Your task to perform on an android device: change notifications settings Image 0: 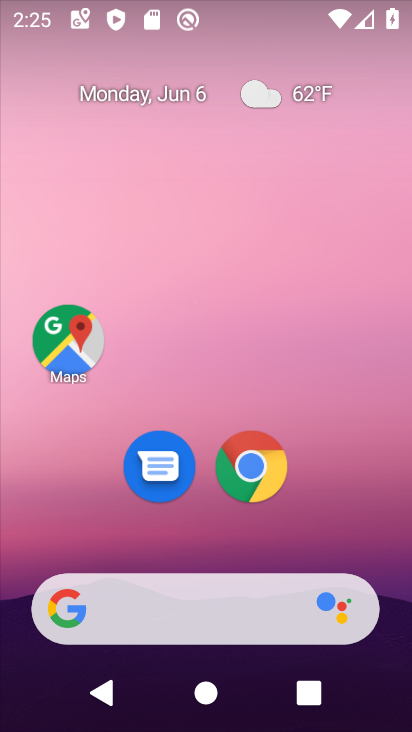
Step 0: drag from (401, 577) to (325, 197)
Your task to perform on an android device: change notifications settings Image 1: 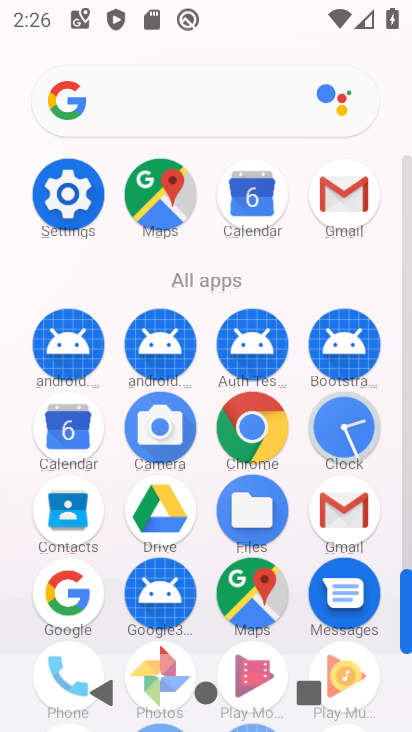
Step 1: click (88, 192)
Your task to perform on an android device: change notifications settings Image 2: 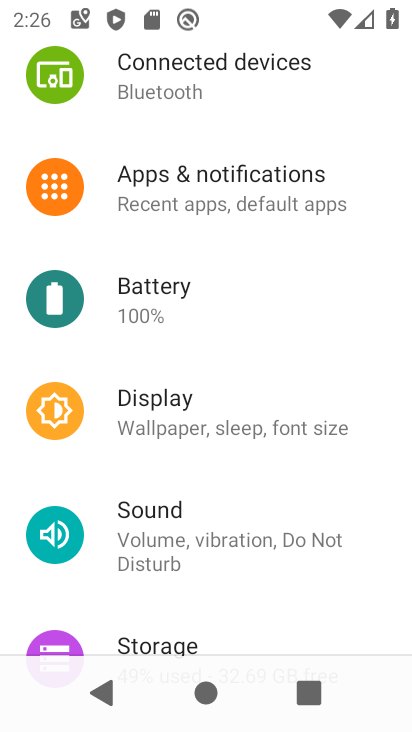
Step 2: click (236, 201)
Your task to perform on an android device: change notifications settings Image 3: 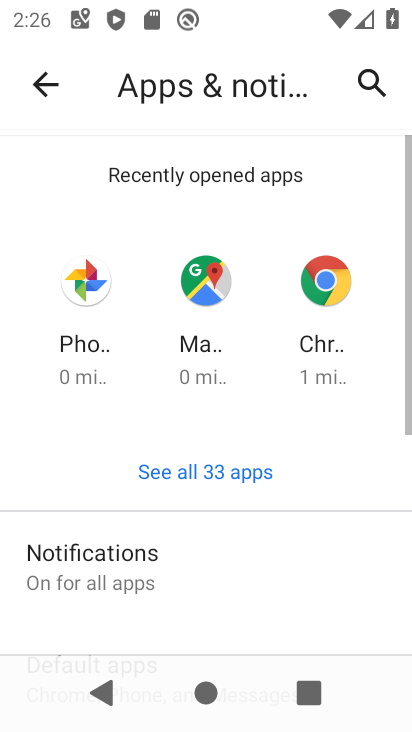
Step 3: drag from (246, 539) to (205, 158)
Your task to perform on an android device: change notifications settings Image 4: 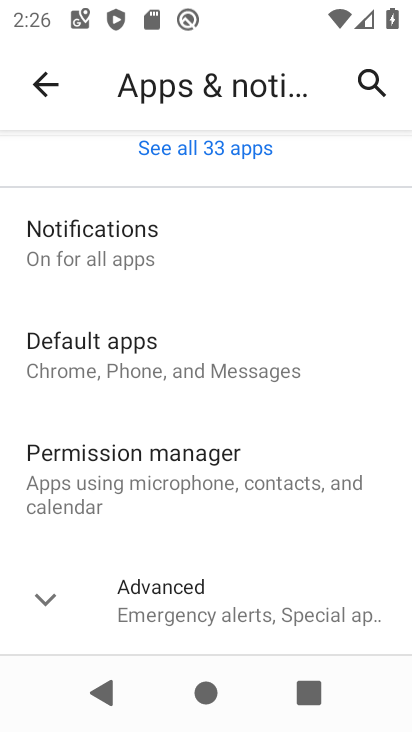
Step 4: click (217, 238)
Your task to perform on an android device: change notifications settings Image 5: 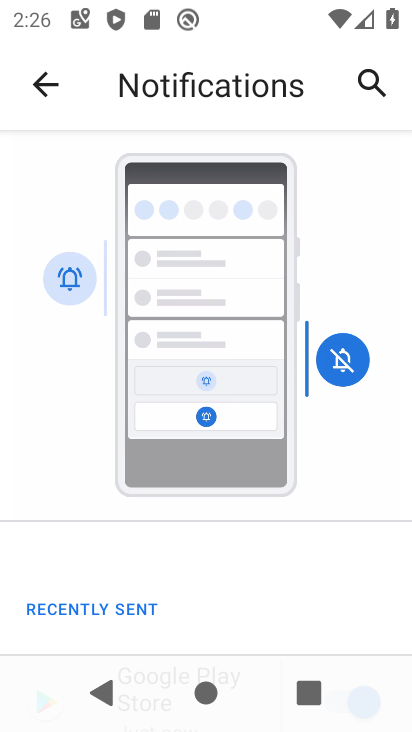
Step 5: drag from (289, 554) to (234, 197)
Your task to perform on an android device: change notifications settings Image 6: 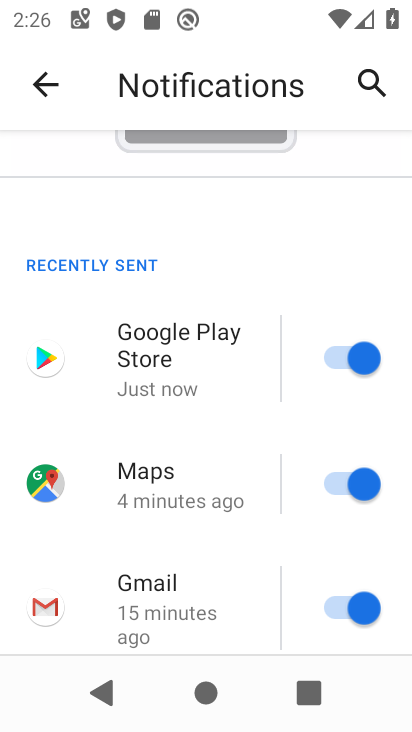
Step 6: drag from (265, 616) to (219, 219)
Your task to perform on an android device: change notifications settings Image 7: 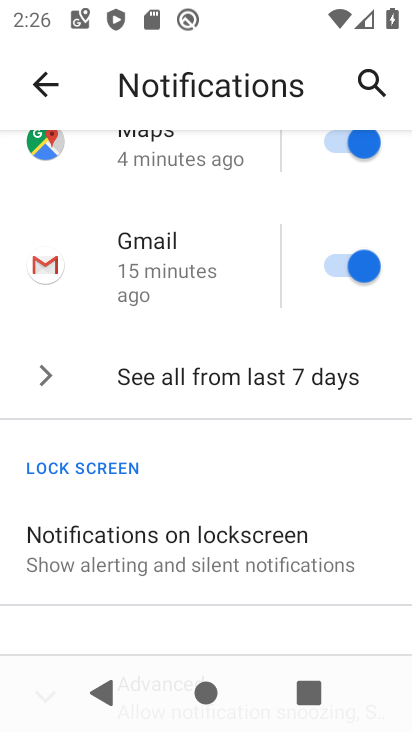
Step 7: drag from (274, 575) to (244, 280)
Your task to perform on an android device: change notifications settings Image 8: 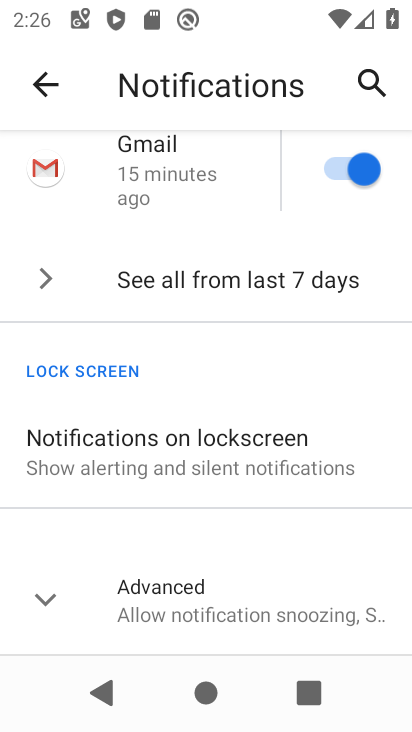
Step 8: click (285, 622)
Your task to perform on an android device: change notifications settings Image 9: 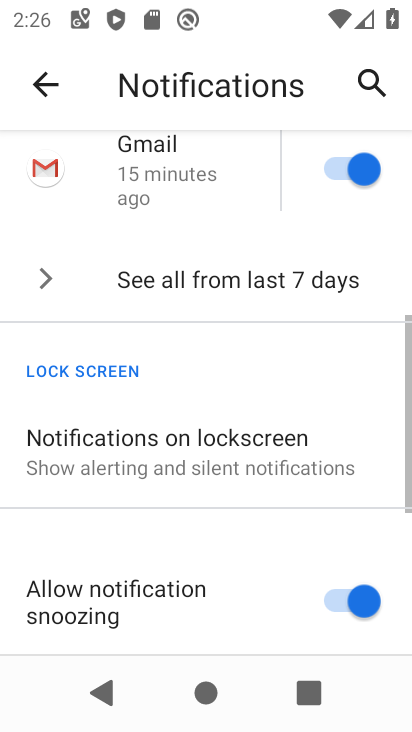
Step 9: drag from (285, 622) to (234, 292)
Your task to perform on an android device: change notifications settings Image 10: 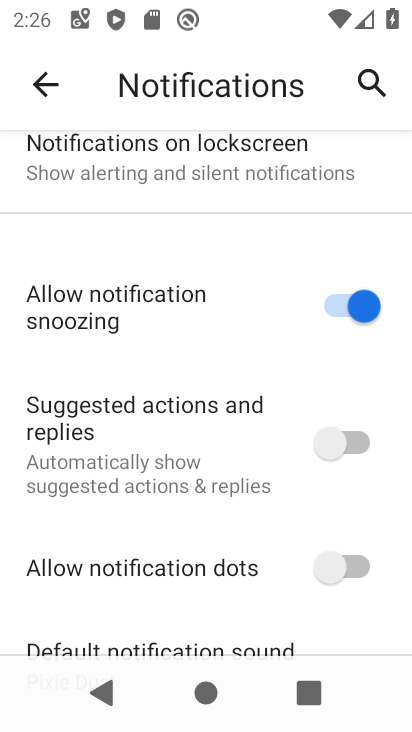
Step 10: click (367, 302)
Your task to perform on an android device: change notifications settings Image 11: 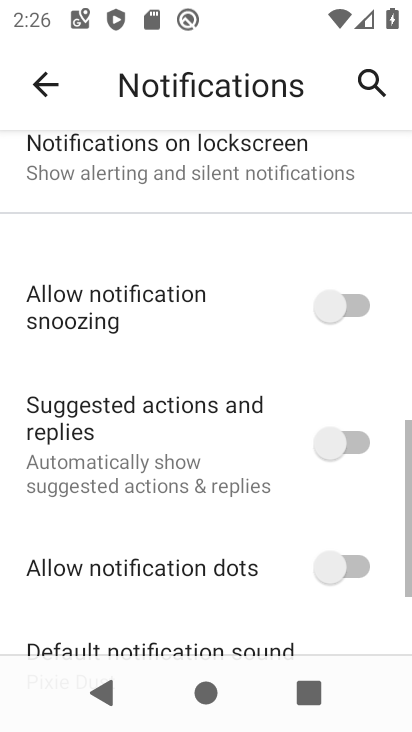
Step 11: click (358, 441)
Your task to perform on an android device: change notifications settings Image 12: 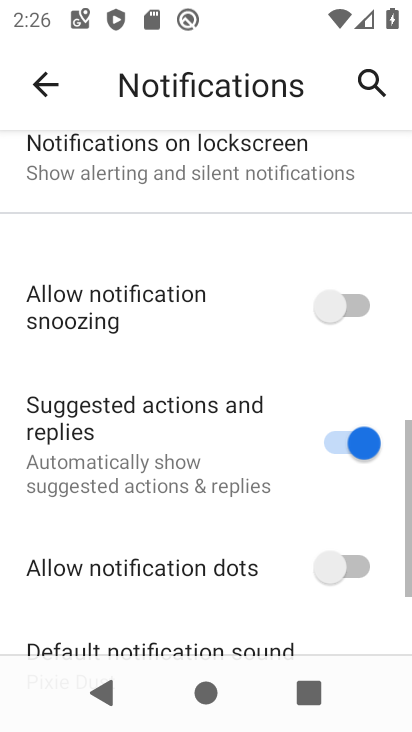
Step 12: click (355, 575)
Your task to perform on an android device: change notifications settings Image 13: 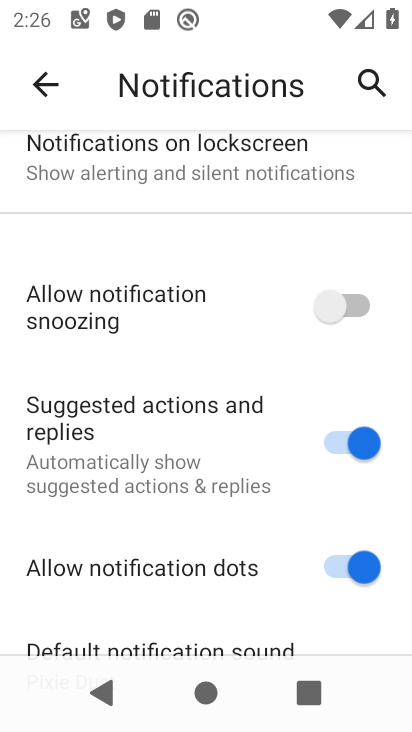
Step 13: task complete